Your task to perform on an android device: toggle airplane mode Image 0: 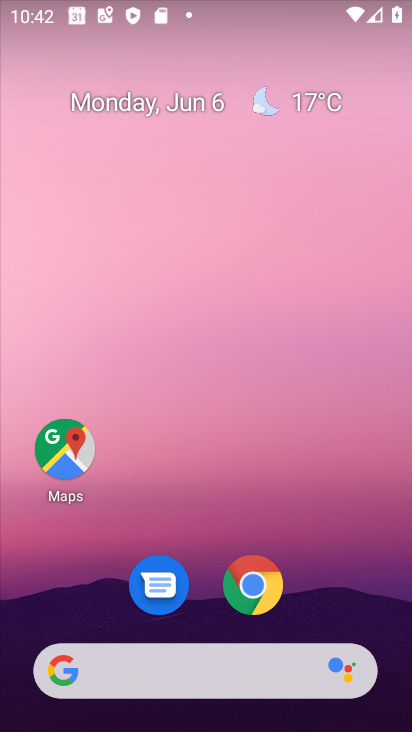
Step 0: drag from (201, 502) to (230, 22)
Your task to perform on an android device: toggle airplane mode Image 1: 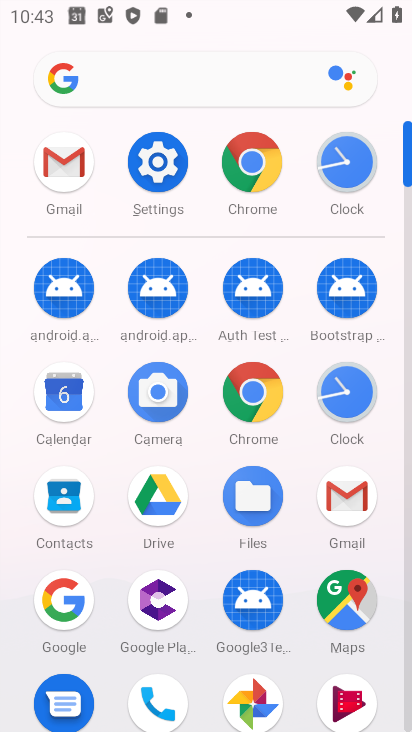
Step 1: click (173, 160)
Your task to perform on an android device: toggle airplane mode Image 2: 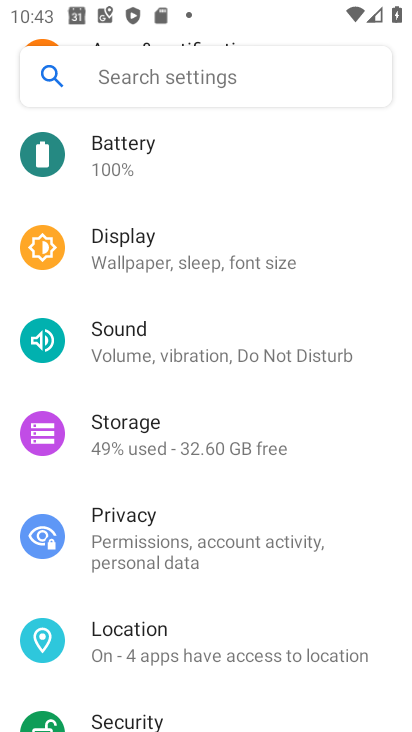
Step 2: drag from (221, 221) to (255, 521)
Your task to perform on an android device: toggle airplane mode Image 3: 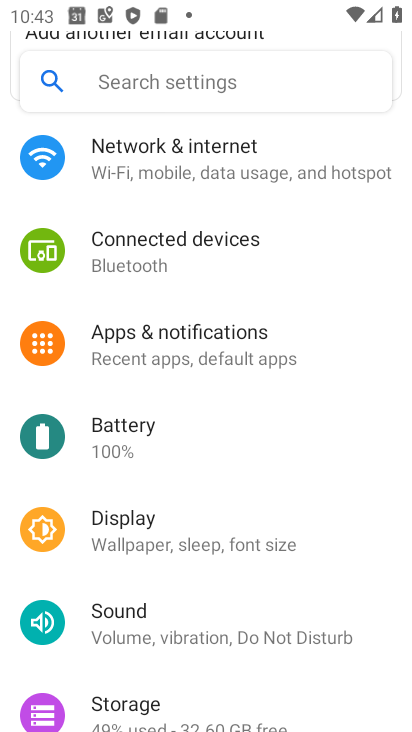
Step 3: click (241, 167)
Your task to perform on an android device: toggle airplane mode Image 4: 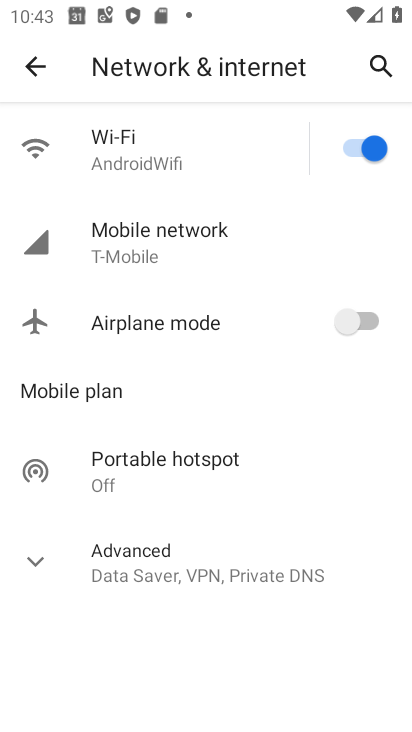
Step 4: click (357, 319)
Your task to perform on an android device: toggle airplane mode Image 5: 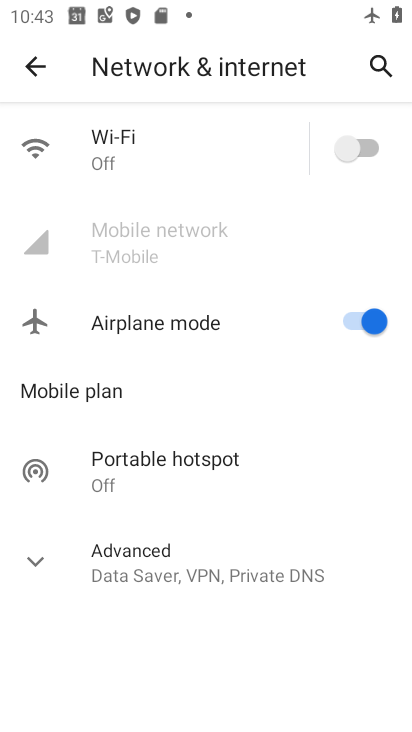
Step 5: task complete